Your task to perform on an android device: allow cookies in the chrome app Image 0: 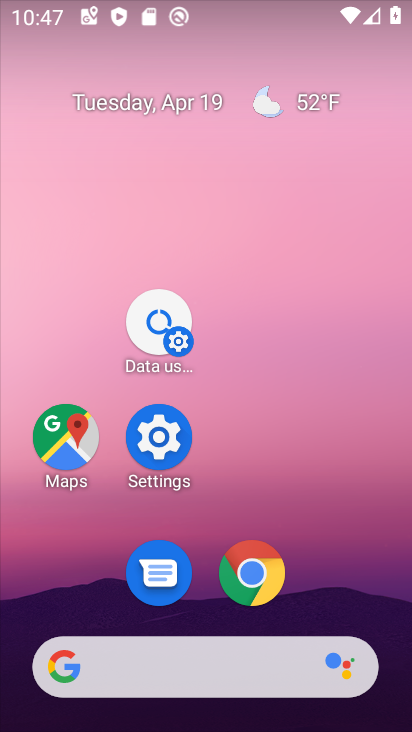
Step 0: click (254, 579)
Your task to perform on an android device: allow cookies in the chrome app Image 1: 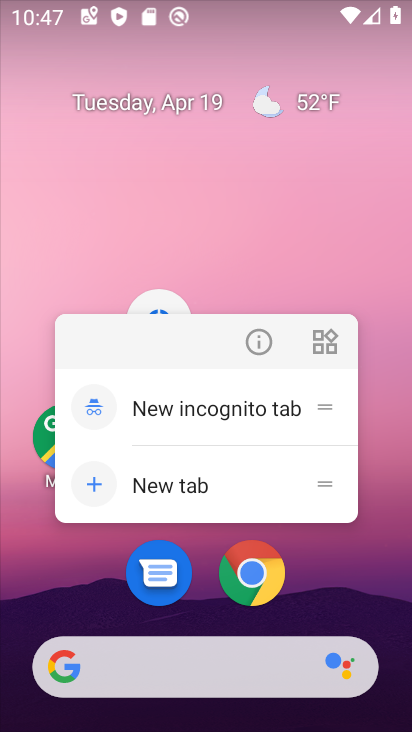
Step 1: click (254, 579)
Your task to perform on an android device: allow cookies in the chrome app Image 2: 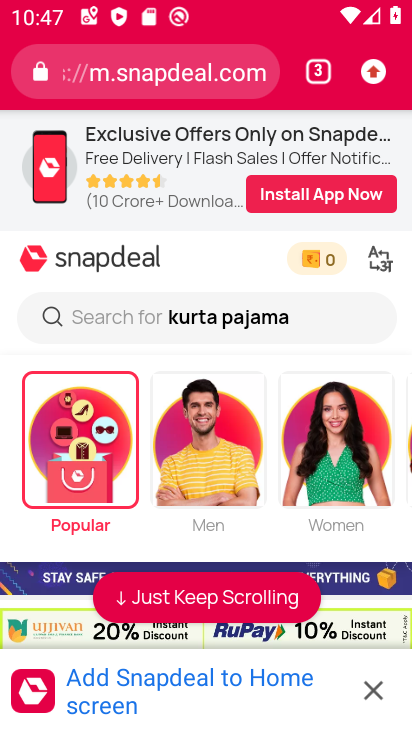
Step 2: click (385, 73)
Your task to perform on an android device: allow cookies in the chrome app Image 3: 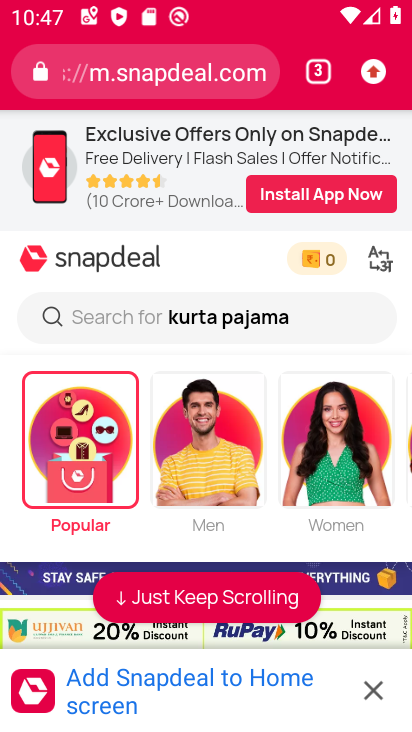
Step 3: click (377, 73)
Your task to perform on an android device: allow cookies in the chrome app Image 4: 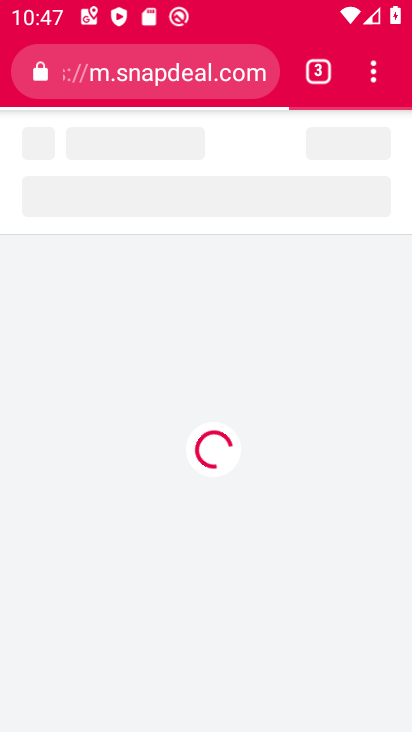
Step 4: click (377, 73)
Your task to perform on an android device: allow cookies in the chrome app Image 5: 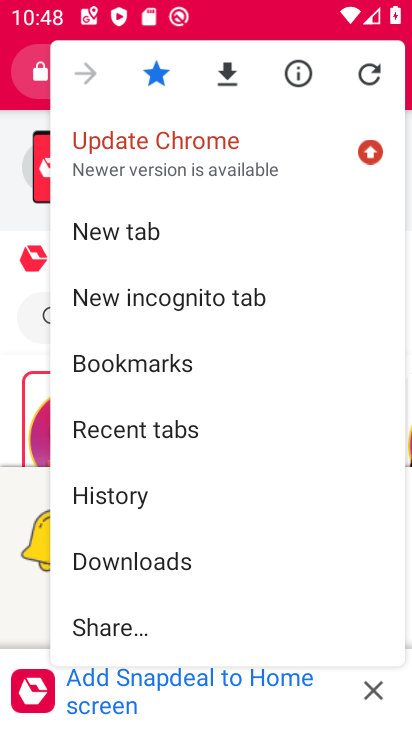
Step 5: drag from (160, 513) to (122, 225)
Your task to perform on an android device: allow cookies in the chrome app Image 6: 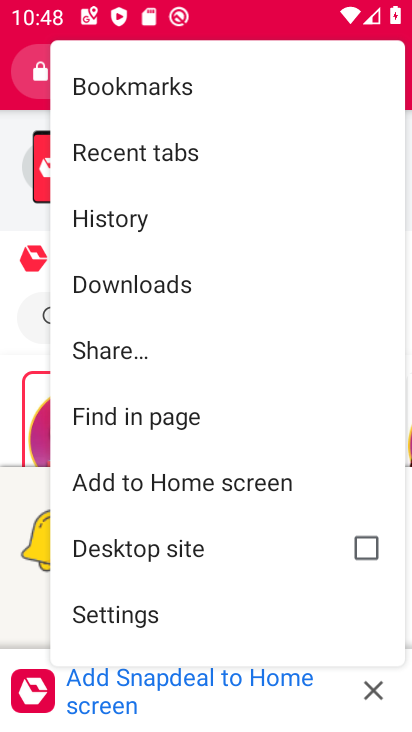
Step 6: drag from (143, 560) to (121, 286)
Your task to perform on an android device: allow cookies in the chrome app Image 7: 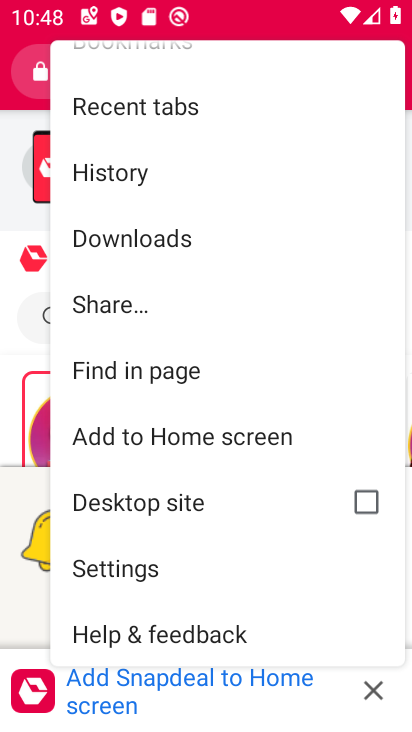
Step 7: click (114, 574)
Your task to perform on an android device: allow cookies in the chrome app Image 8: 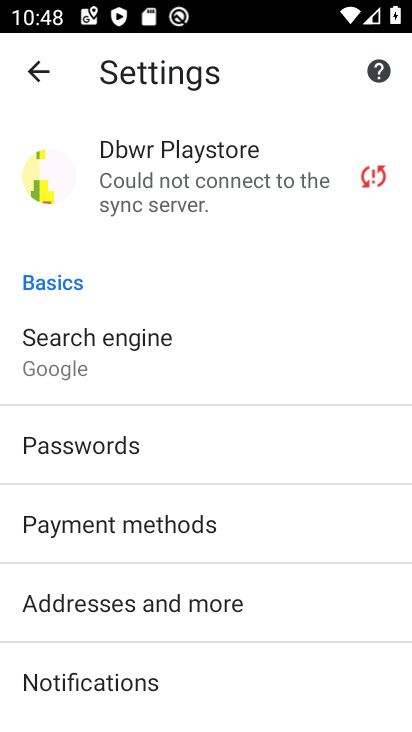
Step 8: drag from (233, 559) to (200, 289)
Your task to perform on an android device: allow cookies in the chrome app Image 9: 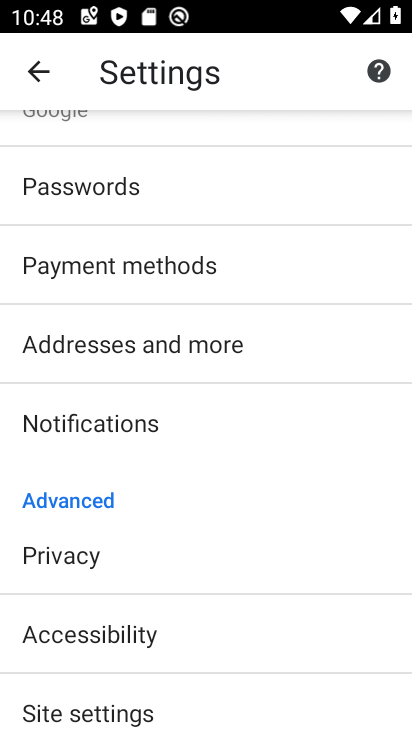
Step 9: drag from (210, 577) to (181, 263)
Your task to perform on an android device: allow cookies in the chrome app Image 10: 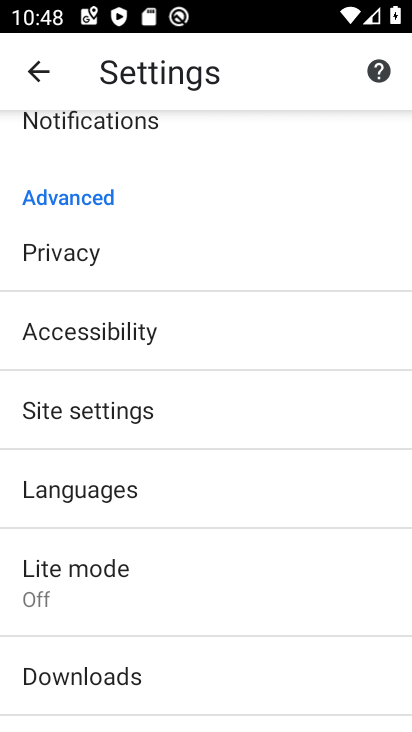
Step 10: click (76, 411)
Your task to perform on an android device: allow cookies in the chrome app Image 11: 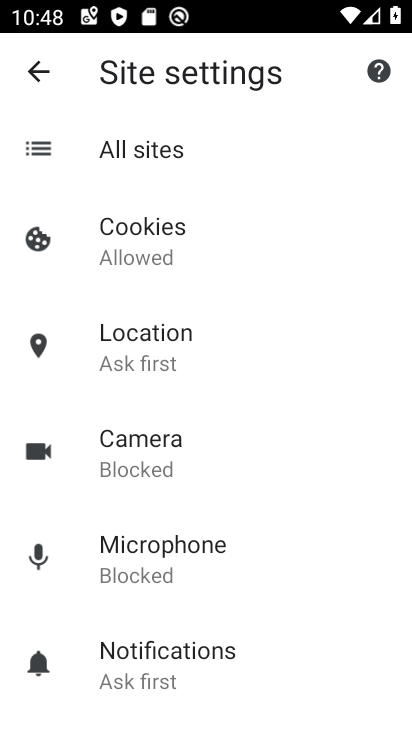
Step 11: click (124, 262)
Your task to perform on an android device: allow cookies in the chrome app Image 12: 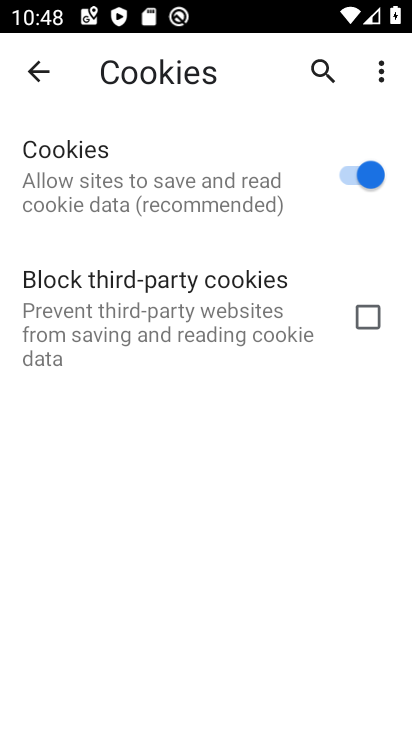
Step 12: task complete